Your task to perform on an android device: check storage Image 0: 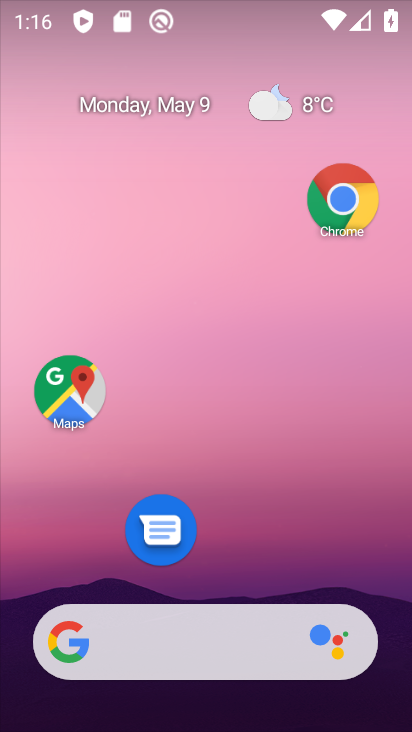
Step 0: drag from (233, 520) to (211, 32)
Your task to perform on an android device: check storage Image 1: 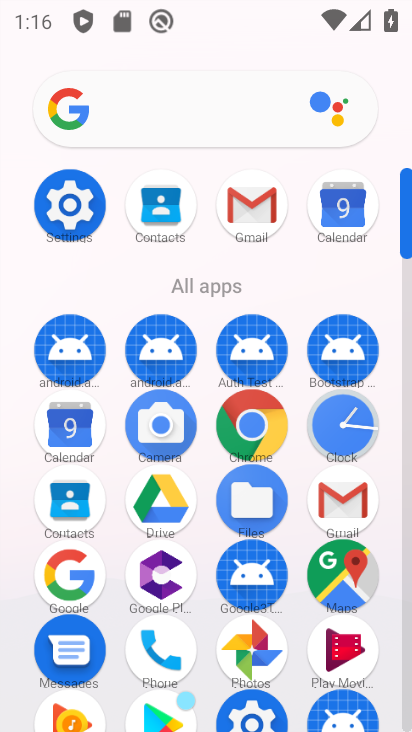
Step 1: click (65, 202)
Your task to perform on an android device: check storage Image 2: 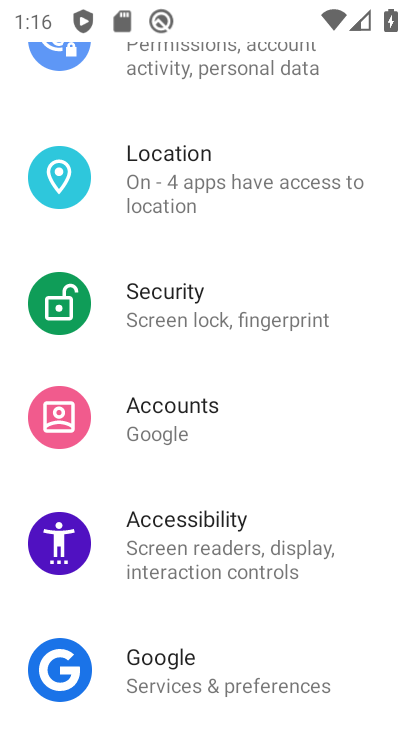
Step 2: drag from (208, 215) to (186, 60)
Your task to perform on an android device: check storage Image 3: 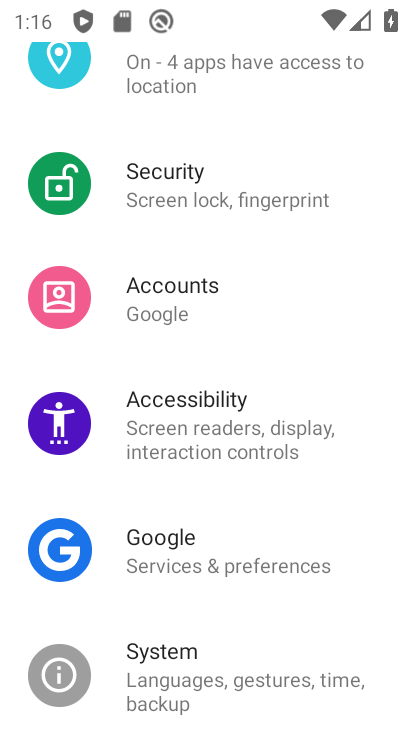
Step 3: drag from (258, 626) to (270, 713)
Your task to perform on an android device: check storage Image 4: 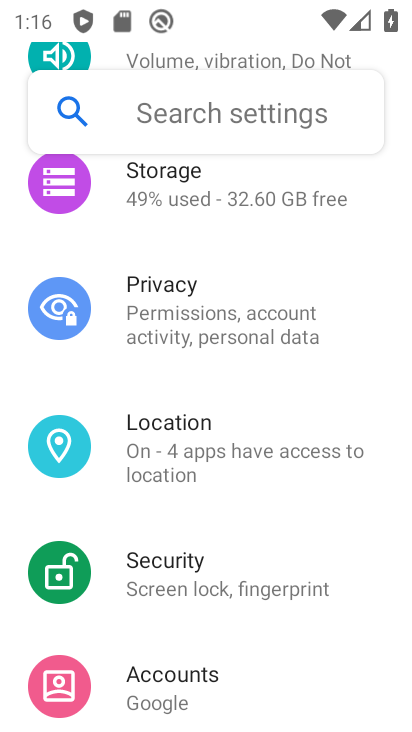
Step 4: drag from (216, 264) to (224, 342)
Your task to perform on an android device: check storage Image 5: 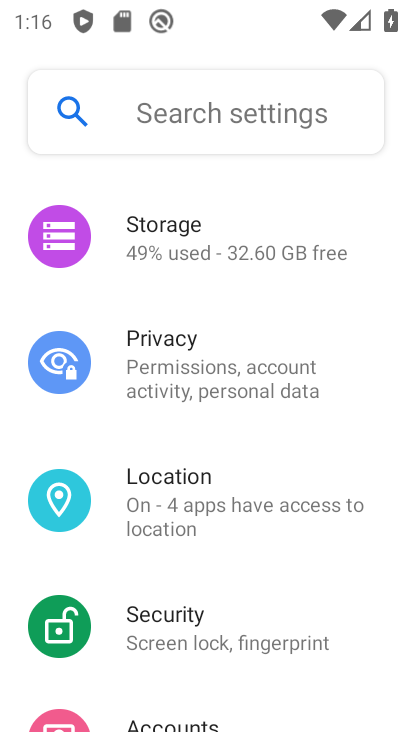
Step 5: click (169, 240)
Your task to perform on an android device: check storage Image 6: 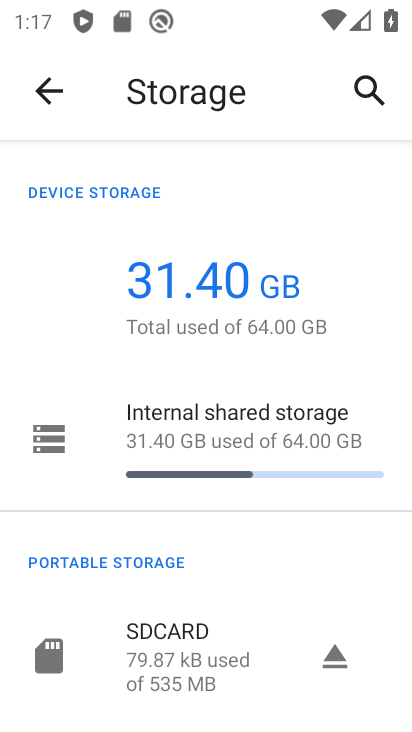
Step 6: task complete